Your task to perform on an android device: Open Wikipedia Image 0: 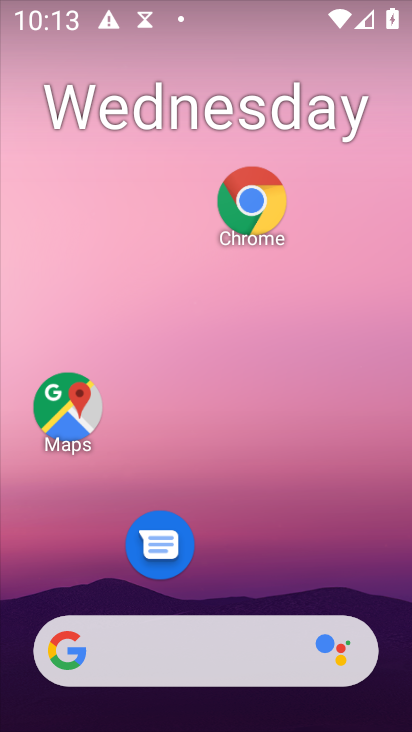
Step 0: click (267, 205)
Your task to perform on an android device: Open Wikipedia Image 1: 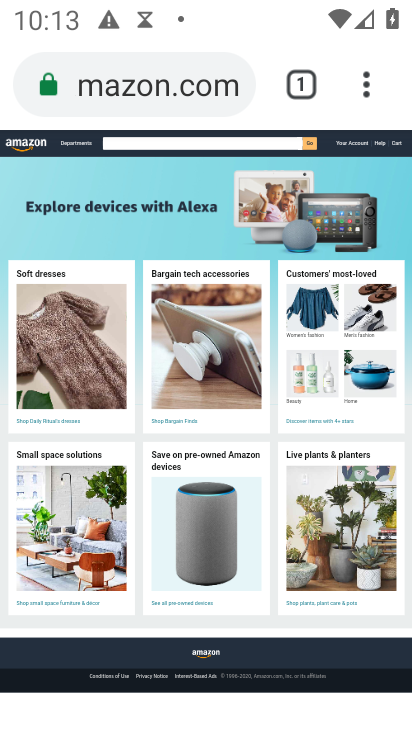
Step 1: click (149, 91)
Your task to perform on an android device: Open Wikipedia Image 2: 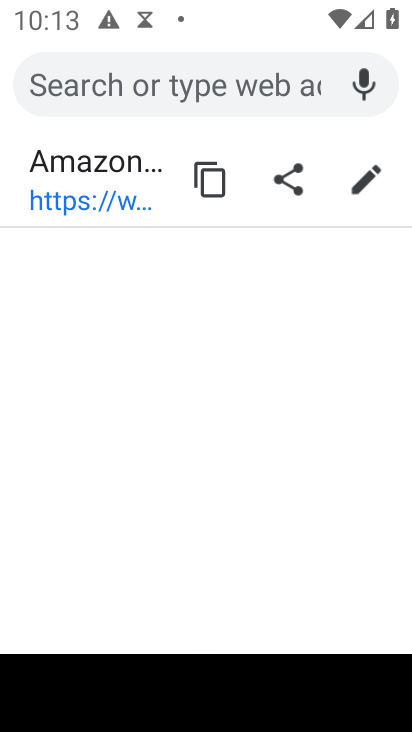
Step 2: type "wikipedia"
Your task to perform on an android device: Open Wikipedia Image 3: 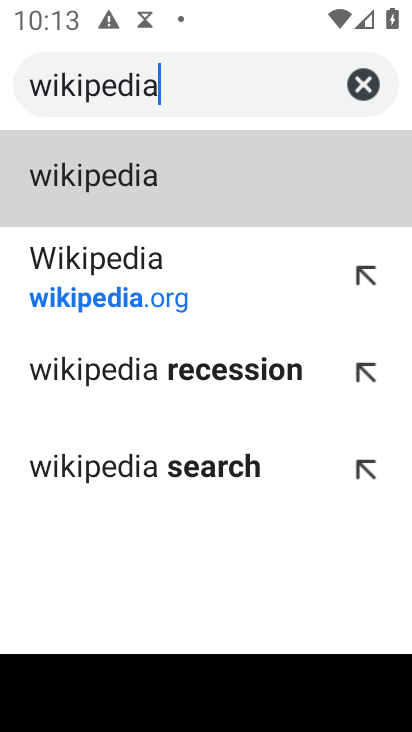
Step 3: click (110, 174)
Your task to perform on an android device: Open Wikipedia Image 4: 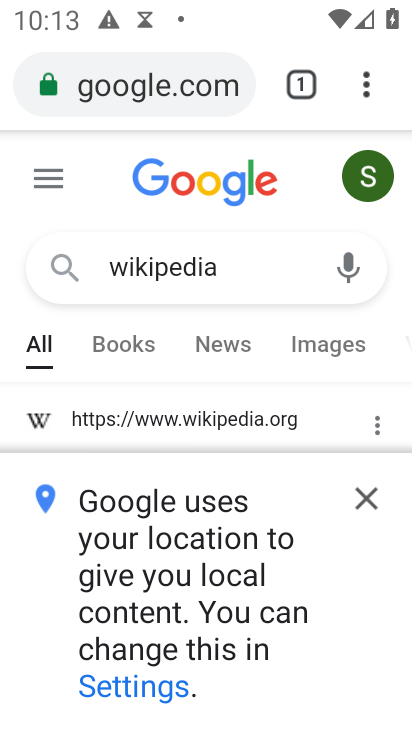
Step 4: click (365, 486)
Your task to perform on an android device: Open Wikipedia Image 5: 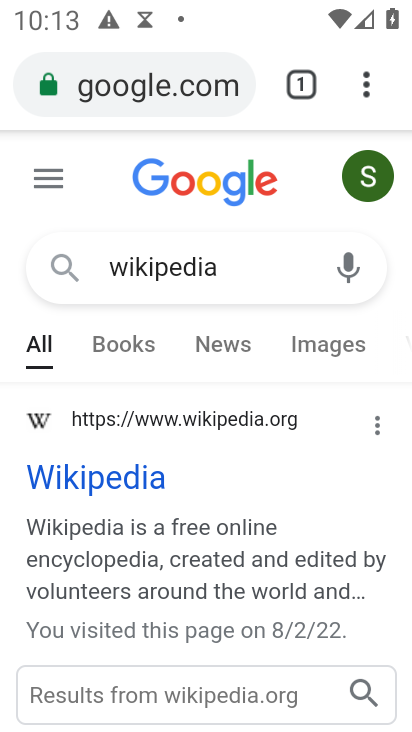
Step 5: click (101, 481)
Your task to perform on an android device: Open Wikipedia Image 6: 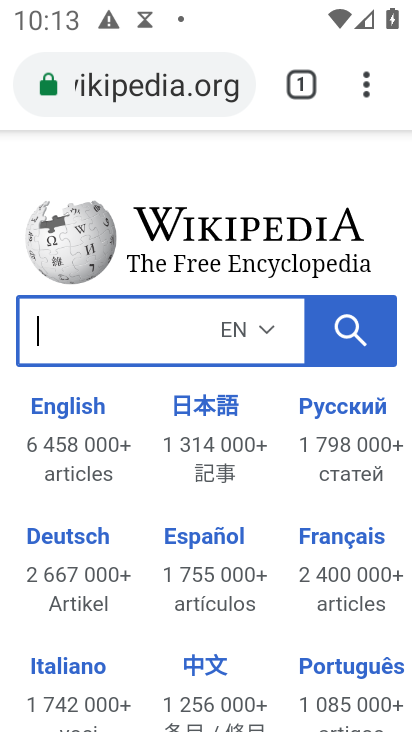
Step 6: task complete